Your task to perform on an android device: open app "The Home Depot" Image 0: 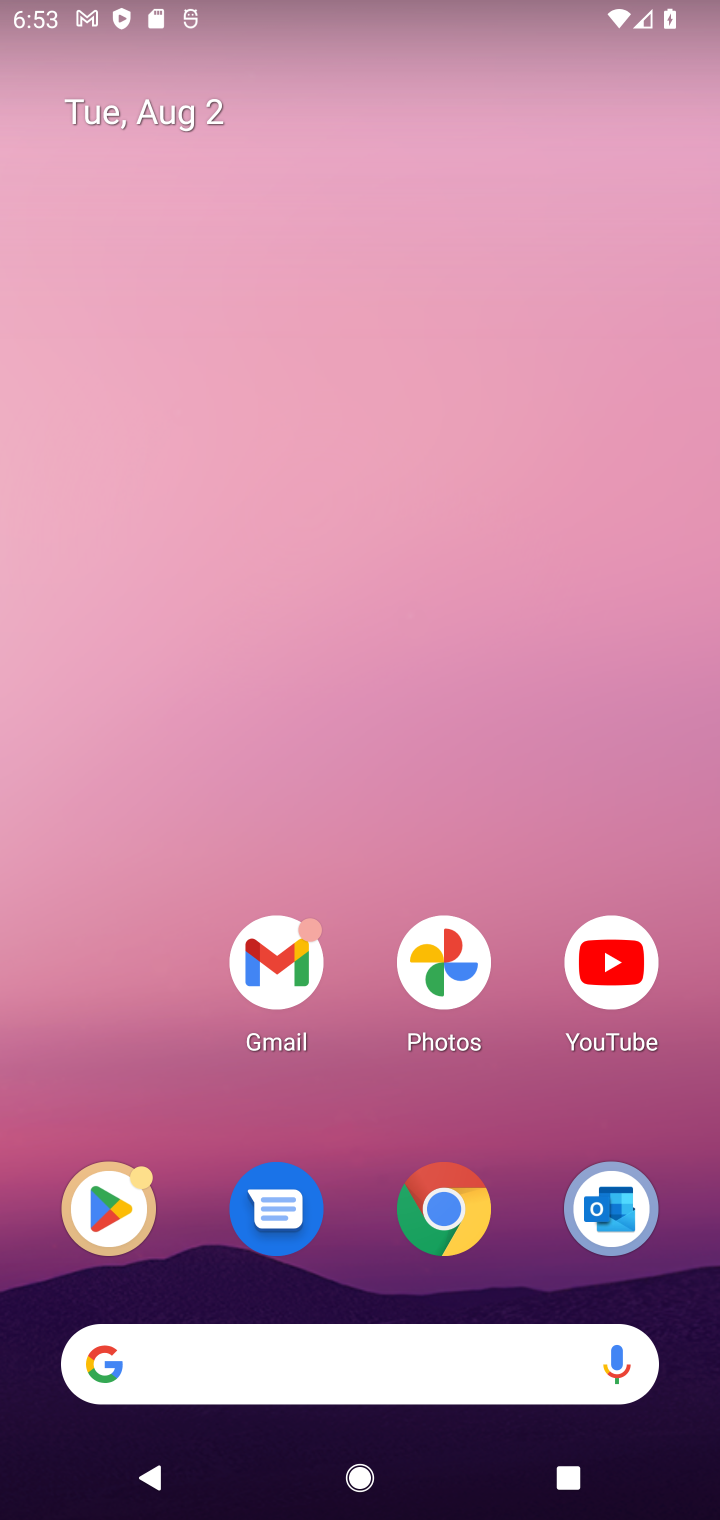
Step 0: drag from (408, 1208) to (398, 308)
Your task to perform on an android device: open app "The Home Depot" Image 1: 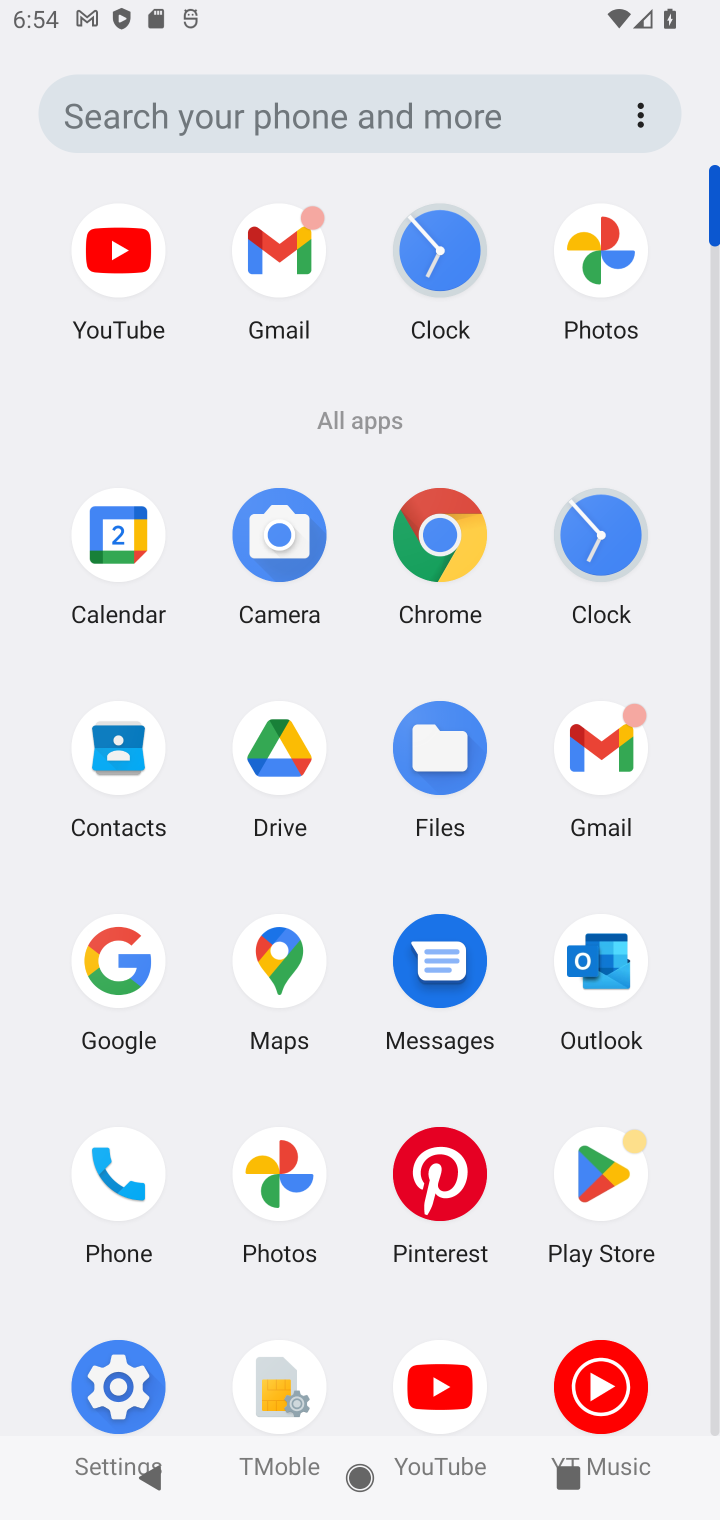
Step 1: click (610, 1180)
Your task to perform on an android device: open app "The Home Depot" Image 2: 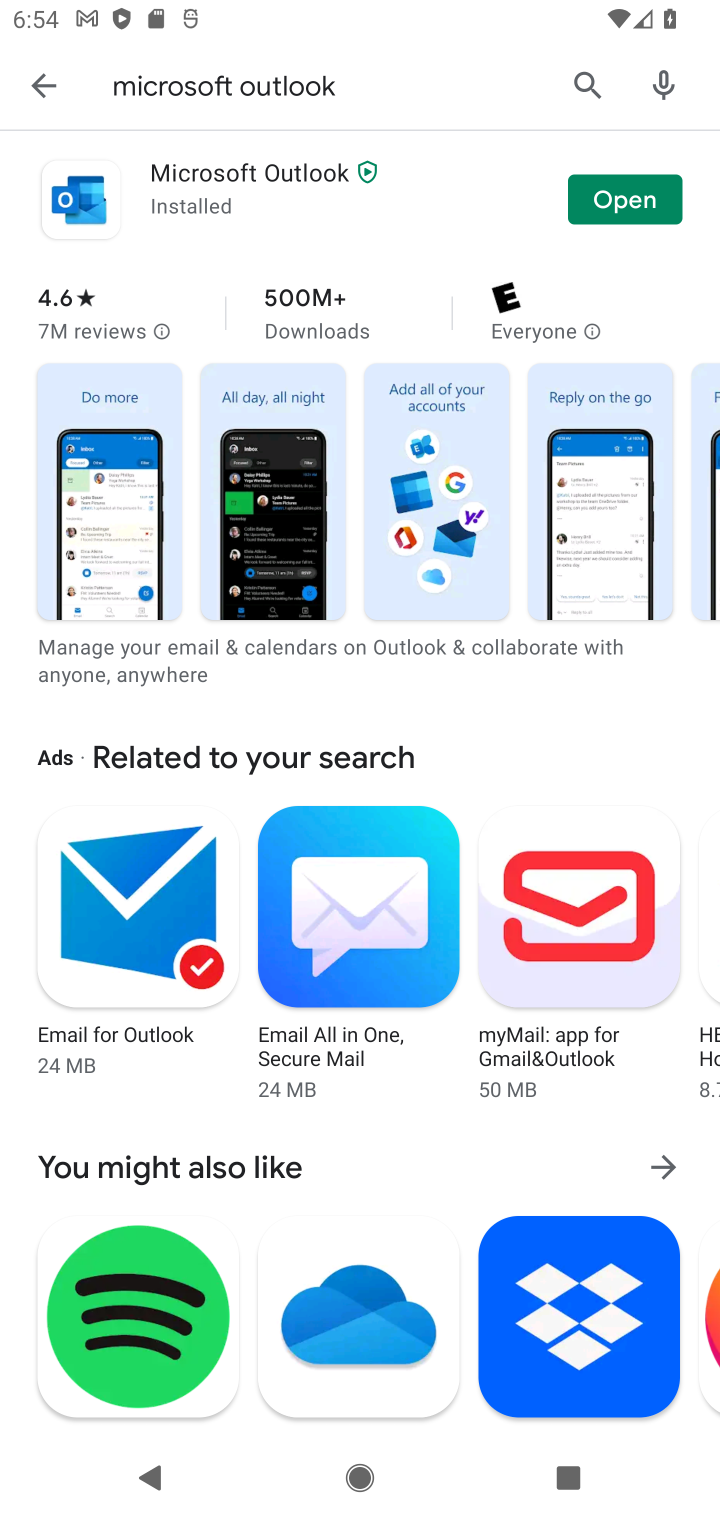
Step 2: click (572, 78)
Your task to perform on an android device: open app "The Home Depot" Image 3: 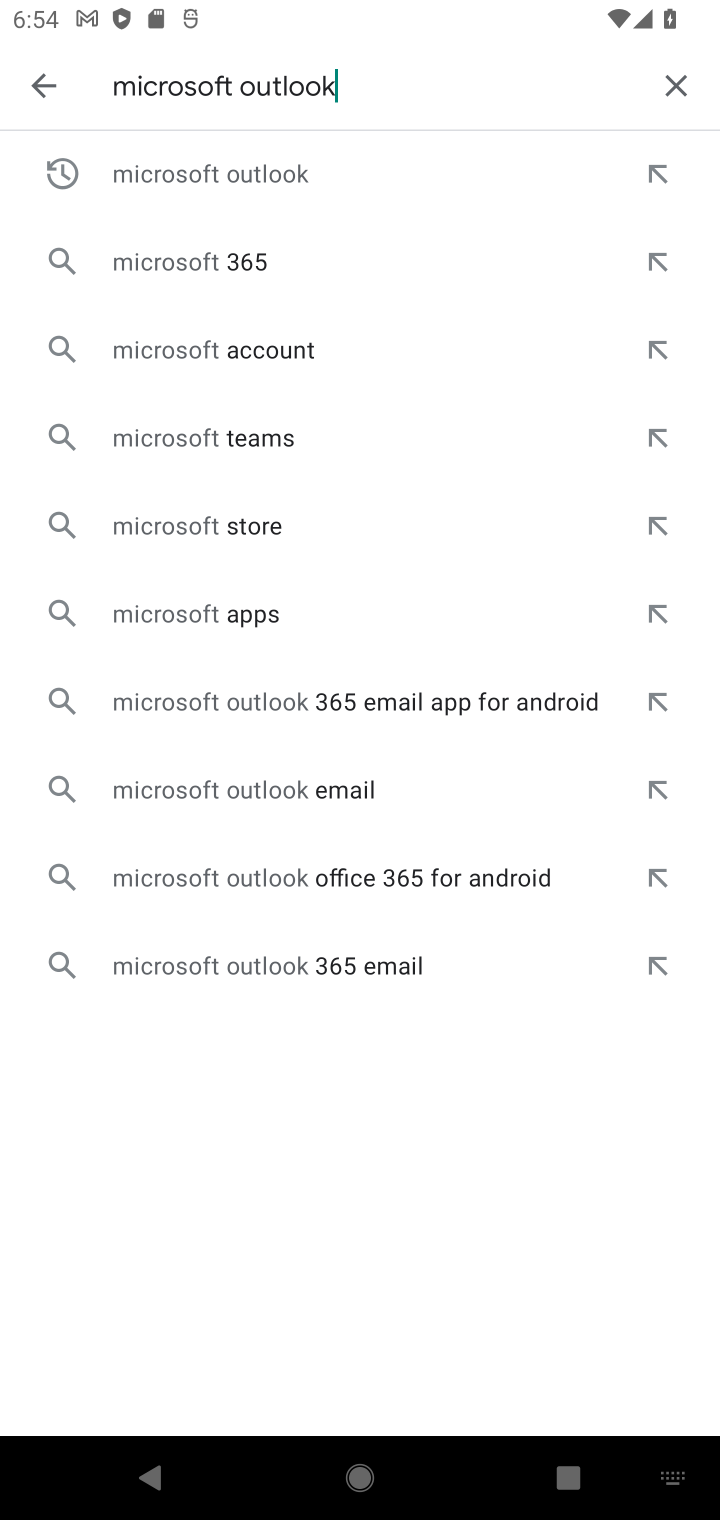
Step 3: click (669, 80)
Your task to perform on an android device: open app "The Home Depot" Image 4: 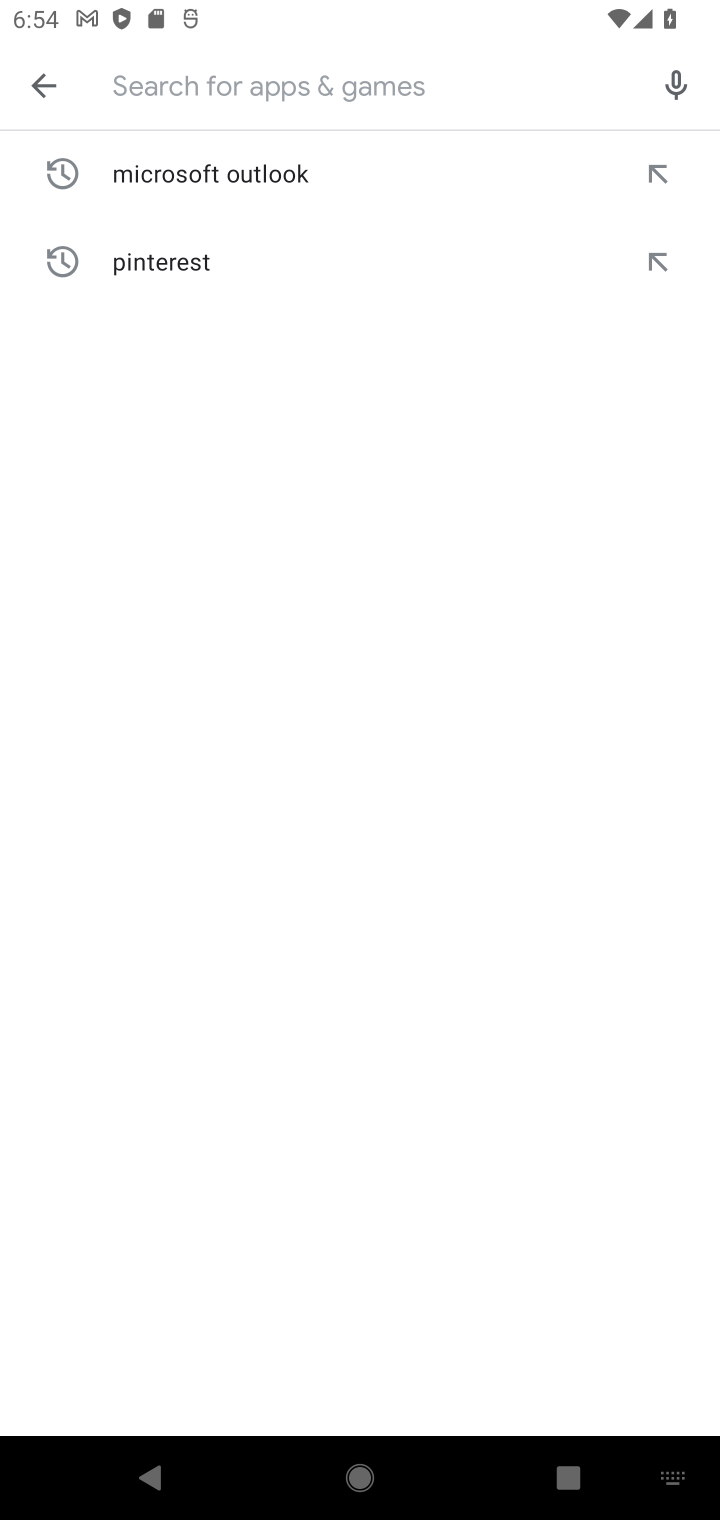
Step 4: type "The Home Depot"
Your task to perform on an android device: open app "The Home Depot" Image 5: 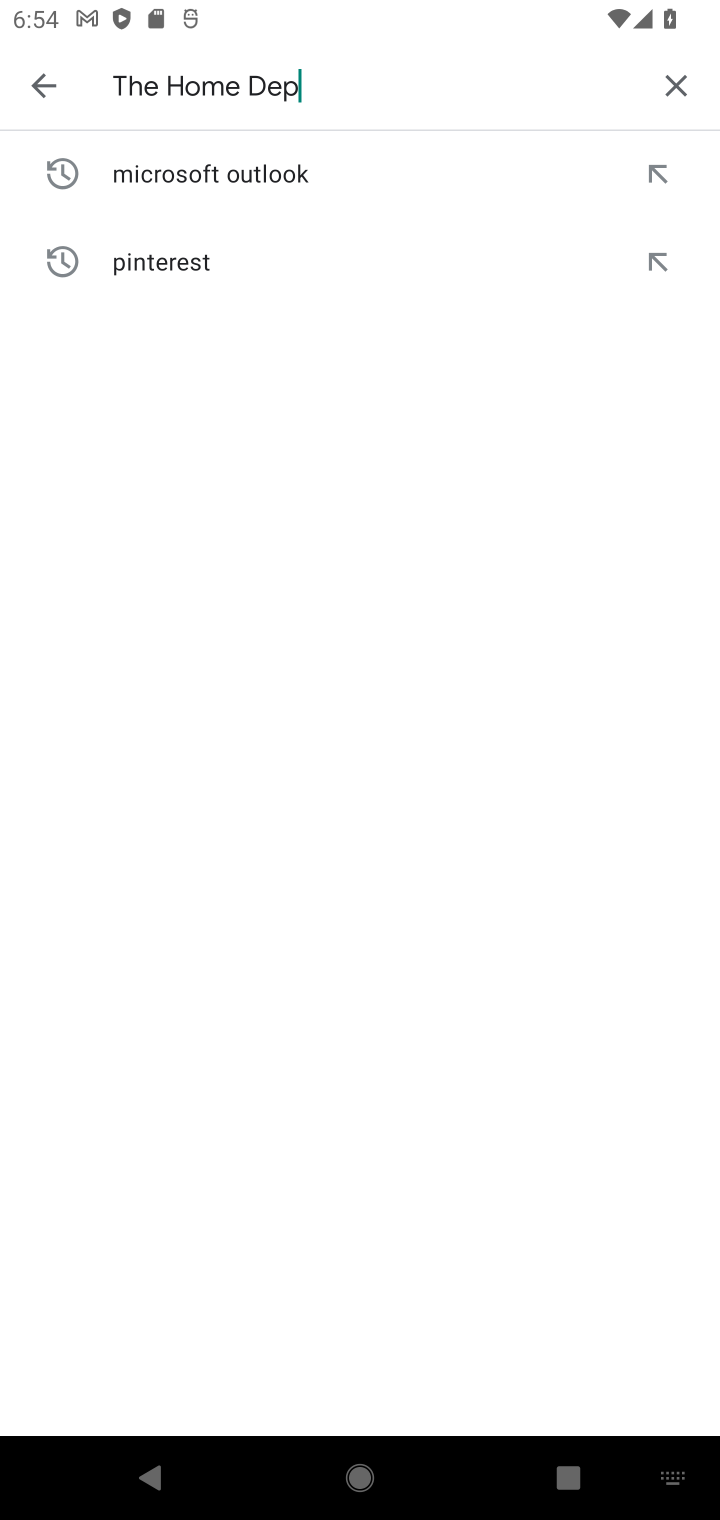
Step 5: type ""
Your task to perform on an android device: open app "The Home Depot" Image 6: 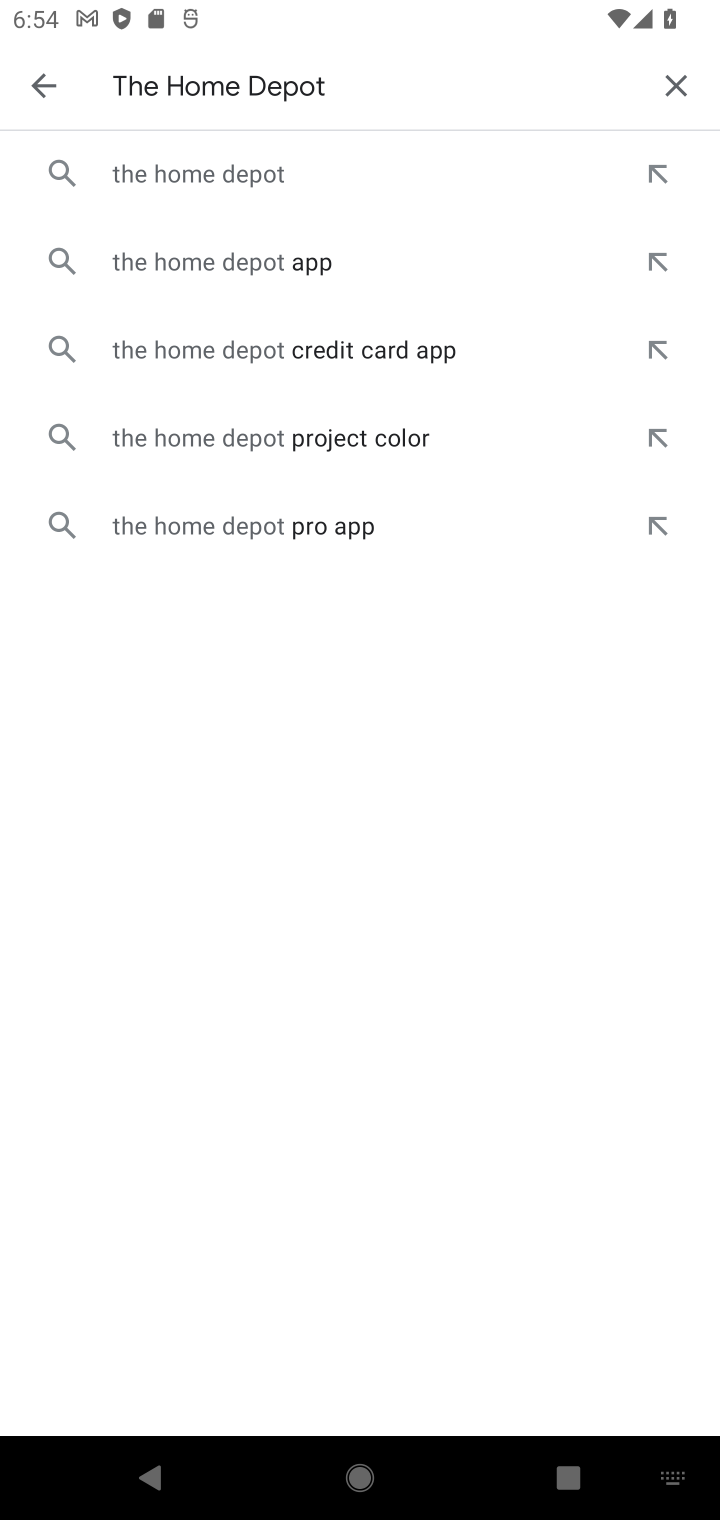
Step 6: click (230, 176)
Your task to perform on an android device: open app "The Home Depot" Image 7: 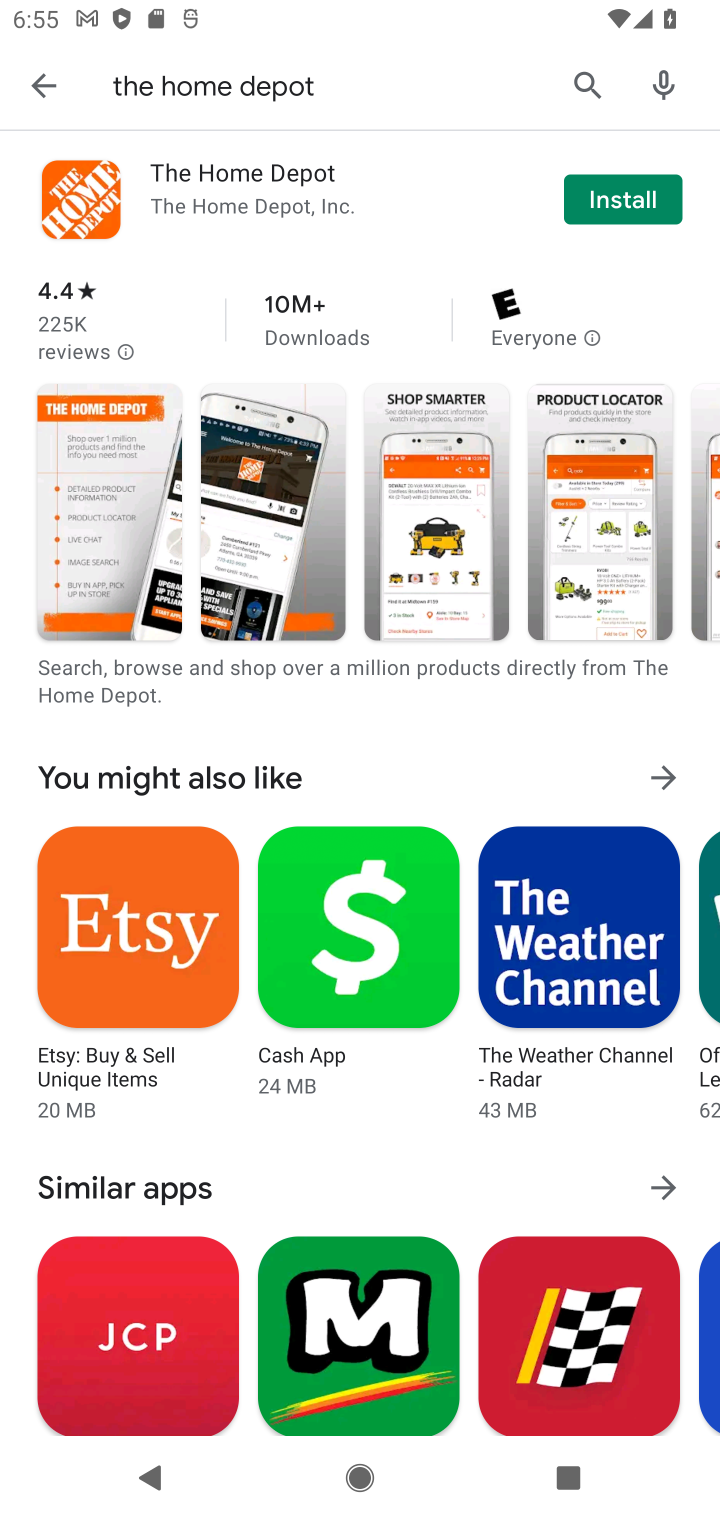
Step 7: task complete